Your task to perform on an android device: star an email in the gmail app Image 0: 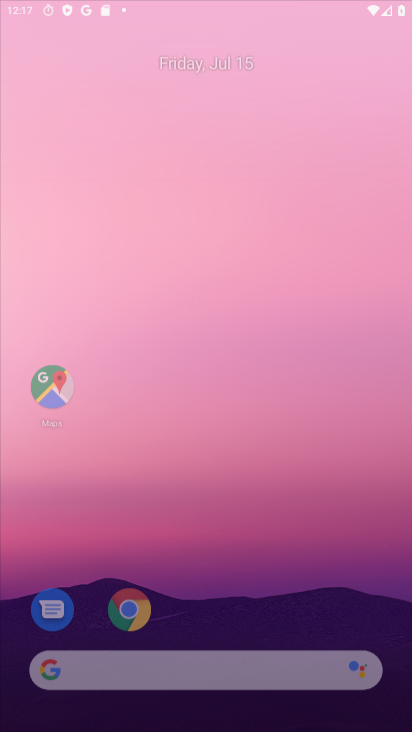
Step 0: click (264, 100)
Your task to perform on an android device: star an email in the gmail app Image 1: 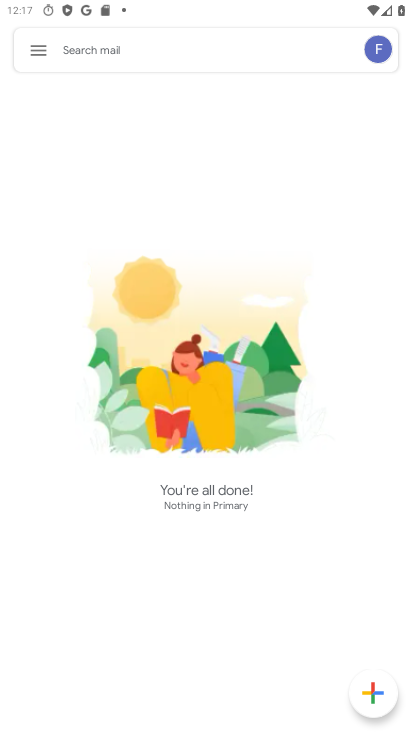
Step 1: press home button
Your task to perform on an android device: star an email in the gmail app Image 2: 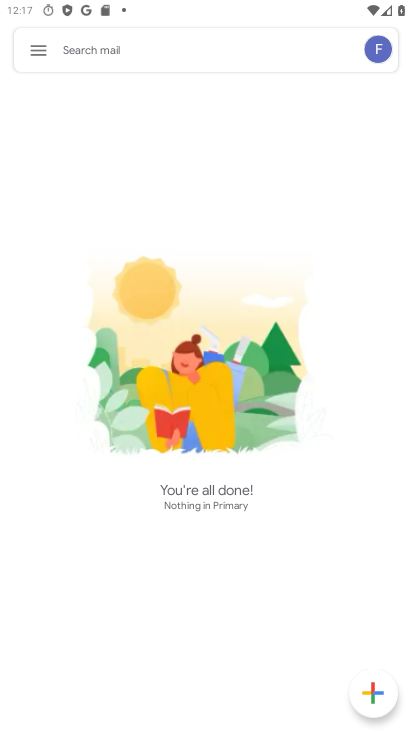
Step 2: press home button
Your task to perform on an android device: star an email in the gmail app Image 3: 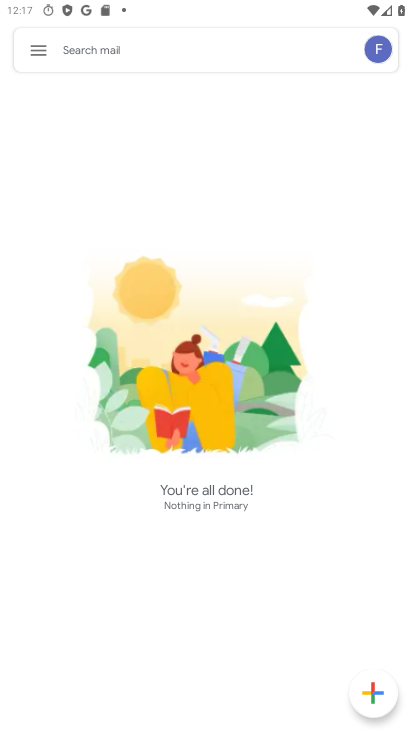
Step 3: click (319, 5)
Your task to perform on an android device: star an email in the gmail app Image 4: 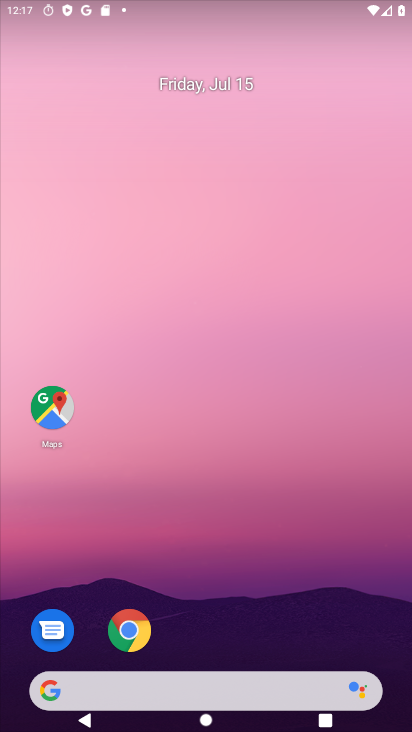
Step 4: drag from (207, 535) to (289, 123)
Your task to perform on an android device: star an email in the gmail app Image 5: 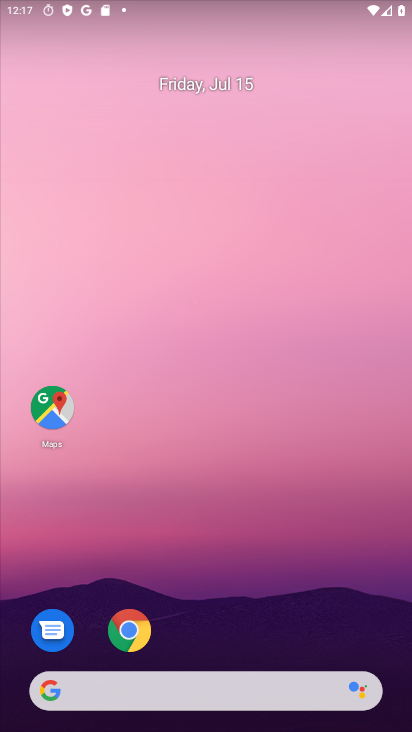
Step 5: drag from (195, 610) to (305, 193)
Your task to perform on an android device: star an email in the gmail app Image 6: 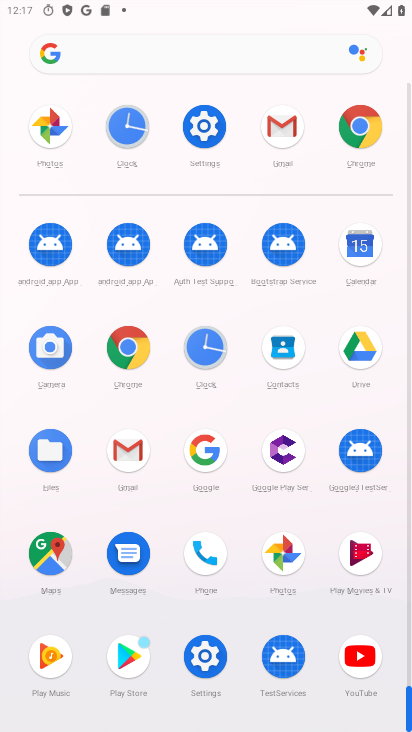
Step 6: click (281, 121)
Your task to perform on an android device: star an email in the gmail app Image 7: 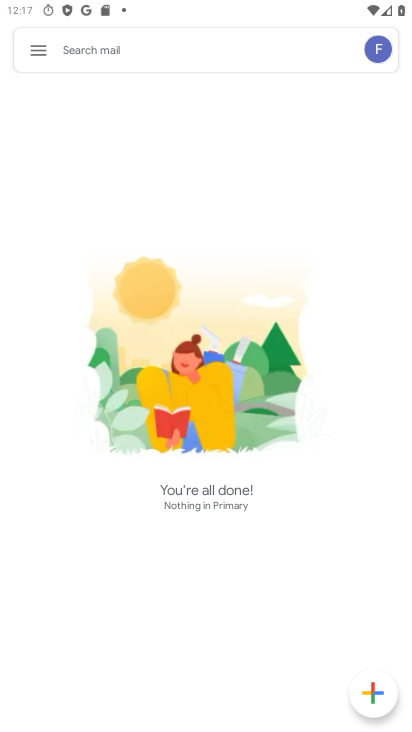
Step 7: click (26, 58)
Your task to perform on an android device: star an email in the gmail app Image 8: 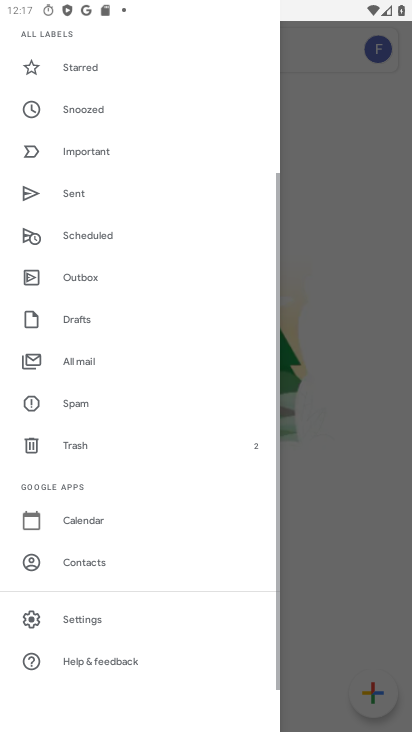
Step 8: drag from (124, 544) to (188, 129)
Your task to perform on an android device: star an email in the gmail app Image 9: 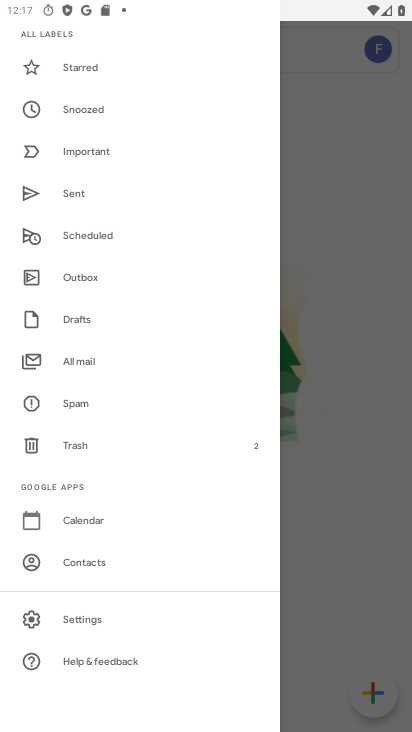
Step 9: drag from (107, 177) to (121, 548)
Your task to perform on an android device: star an email in the gmail app Image 10: 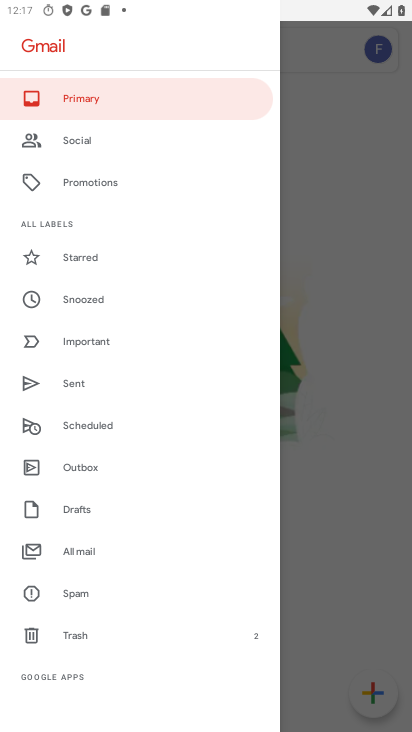
Step 10: click (85, 257)
Your task to perform on an android device: star an email in the gmail app Image 11: 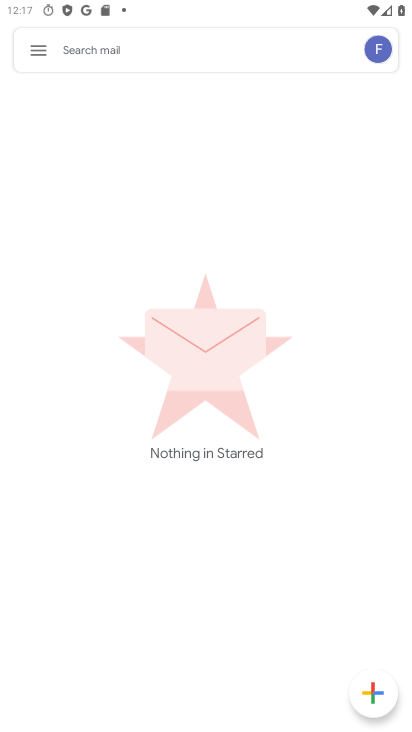
Step 11: drag from (244, 491) to (266, 217)
Your task to perform on an android device: star an email in the gmail app Image 12: 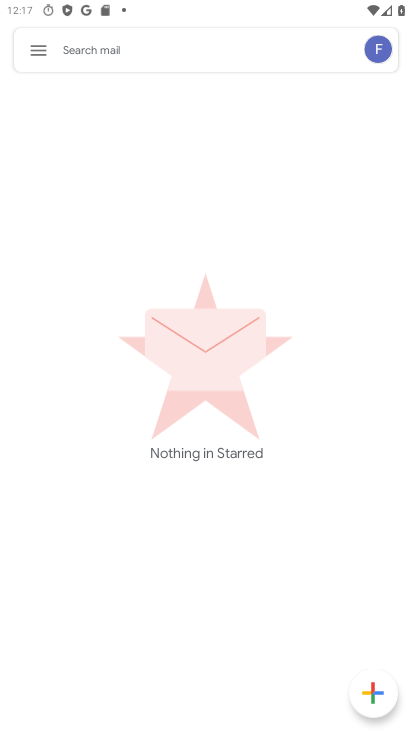
Step 12: drag from (199, 603) to (205, 302)
Your task to perform on an android device: star an email in the gmail app Image 13: 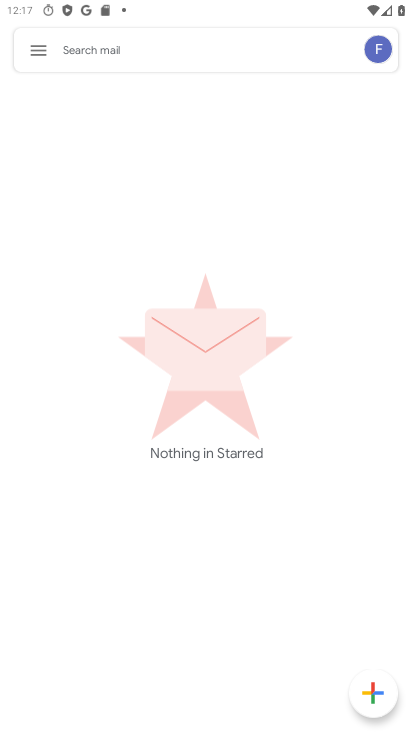
Step 13: click (32, 53)
Your task to perform on an android device: star an email in the gmail app Image 14: 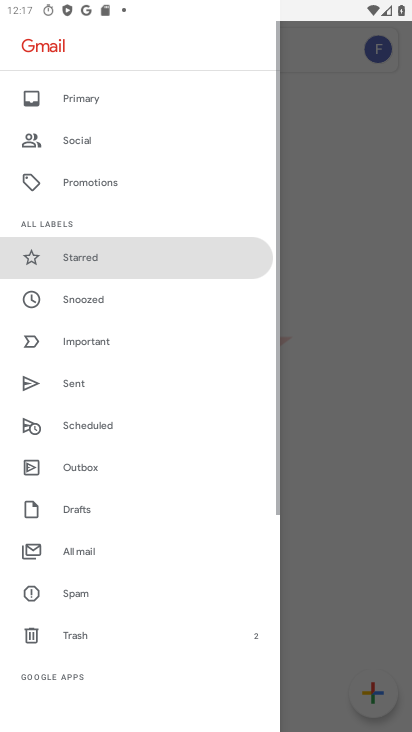
Step 14: click (103, 266)
Your task to perform on an android device: star an email in the gmail app Image 15: 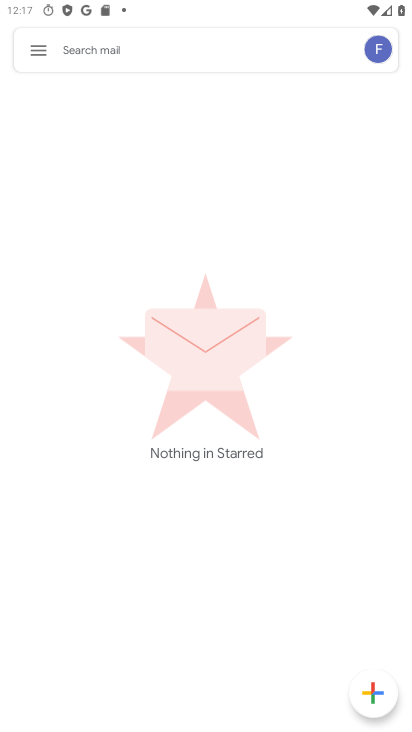
Step 15: drag from (202, 576) to (186, 320)
Your task to perform on an android device: star an email in the gmail app Image 16: 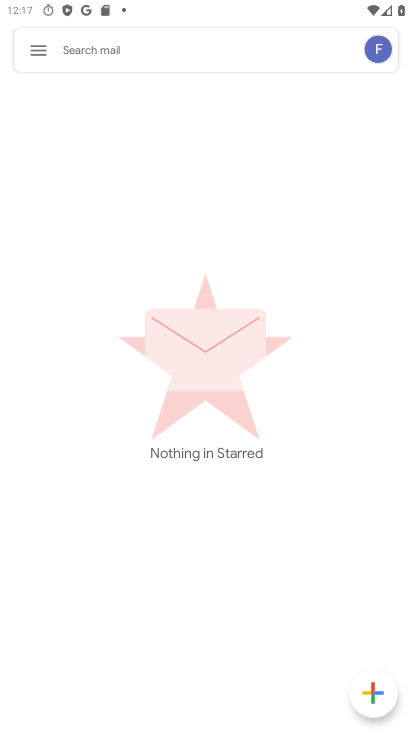
Step 16: click (274, 178)
Your task to perform on an android device: star an email in the gmail app Image 17: 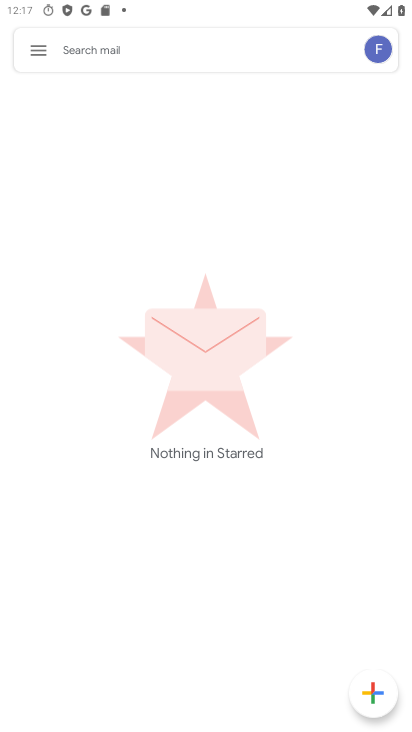
Step 17: task complete